Your task to perform on an android device: Go to Google Image 0: 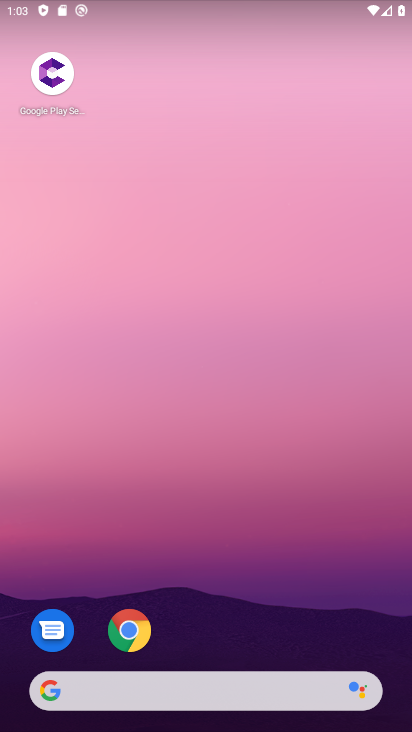
Step 0: click (215, 424)
Your task to perform on an android device: Go to Google Image 1: 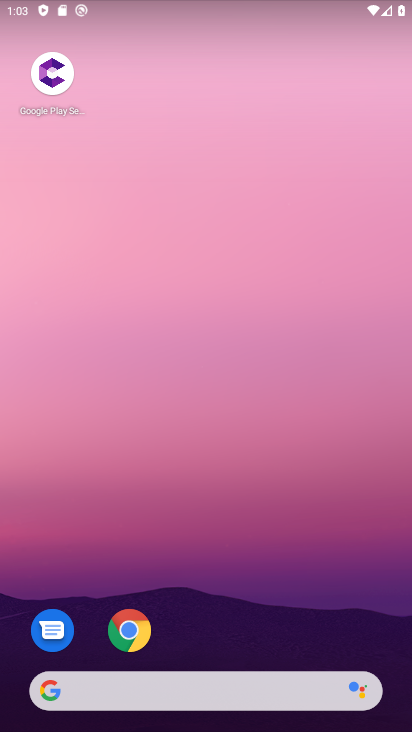
Step 1: click (223, 634)
Your task to perform on an android device: Go to Google Image 2: 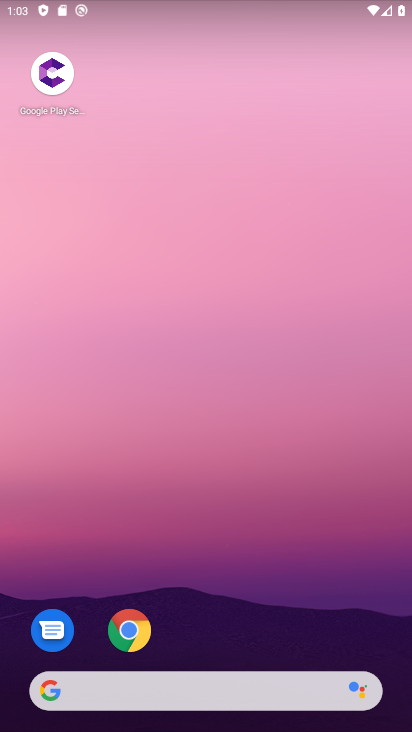
Step 2: click (275, 156)
Your task to perform on an android device: Go to Google Image 3: 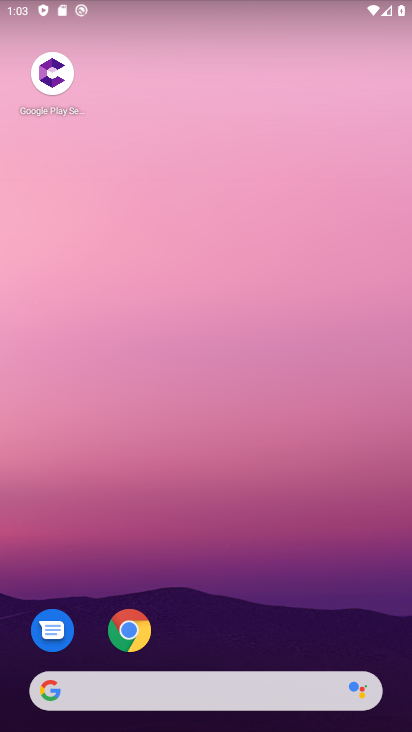
Step 3: drag from (306, 624) to (357, 179)
Your task to perform on an android device: Go to Google Image 4: 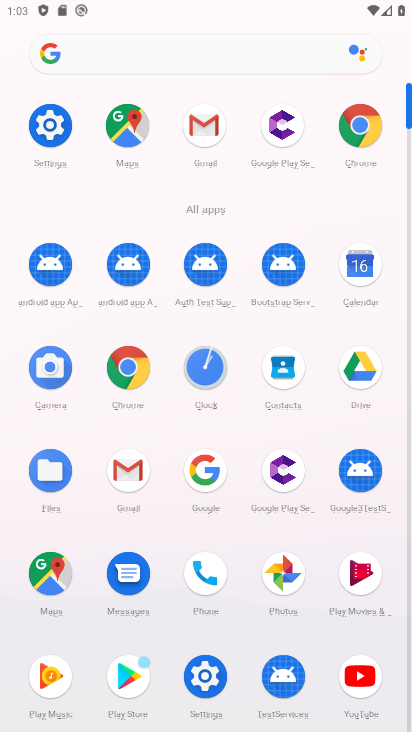
Step 4: click (206, 479)
Your task to perform on an android device: Go to Google Image 5: 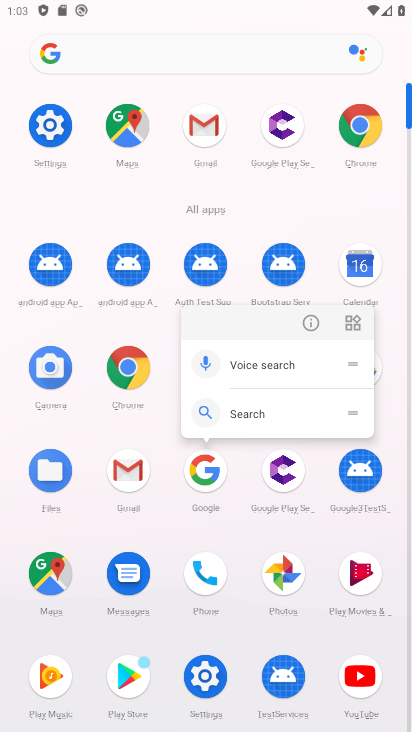
Step 5: click (206, 479)
Your task to perform on an android device: Go to Google Image 6: 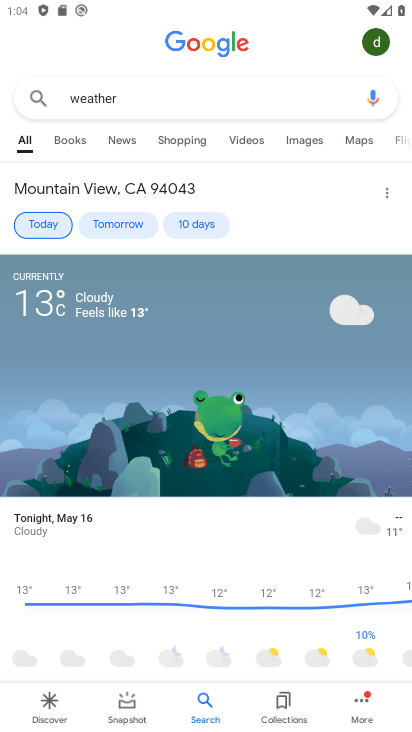
Step 6: press home button
Your task to perform on an android device: Go to Google Image 7: 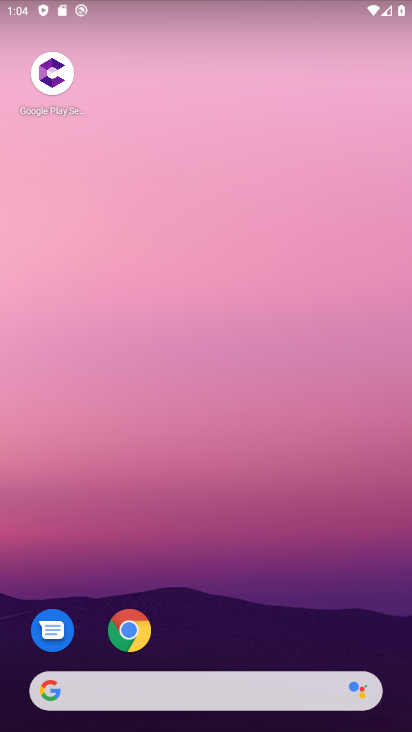
Step 7: drag from (218, 610) to (205, 345)
Your task to perform on an android device: Go to Google Image 8: 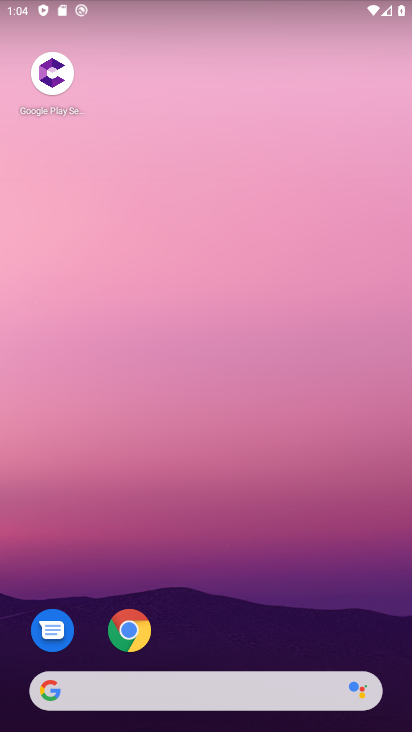
Step 8: drag from (255, 607) to (249, 183)
Your task to perform on an android device: Go to Google Image 9: 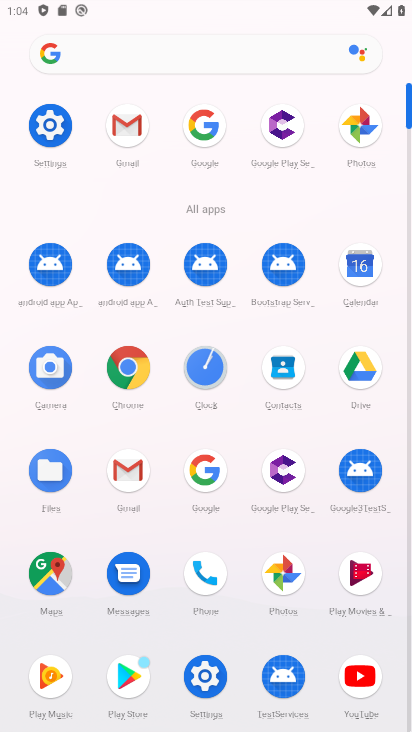
Step 9: click (197, 120)
Your task to perform on an android device: Go to Google Image 10: 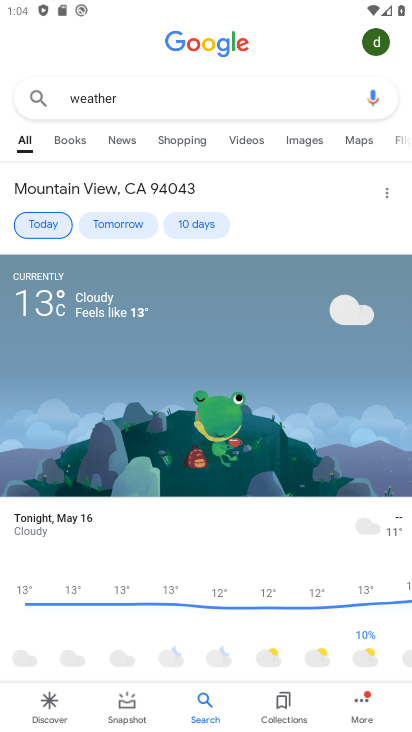
Step 10: task complete